Your task to perform on an android device: Open the map Image 0: 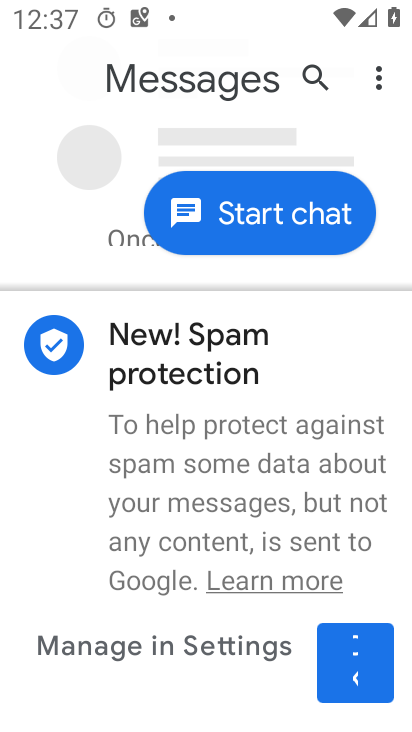
Step 0: drag from (361, 530) to (402, 461)
Your task to perform on an android device: Open the map Image 1: 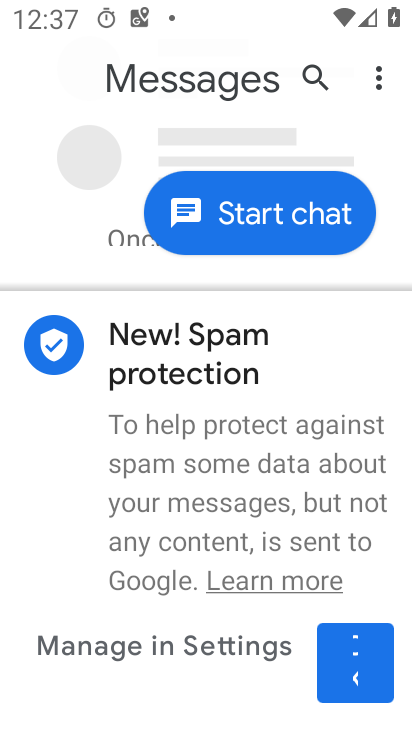
Step 1: press home button
Your task to perform on an android device: Open the map Image 2: 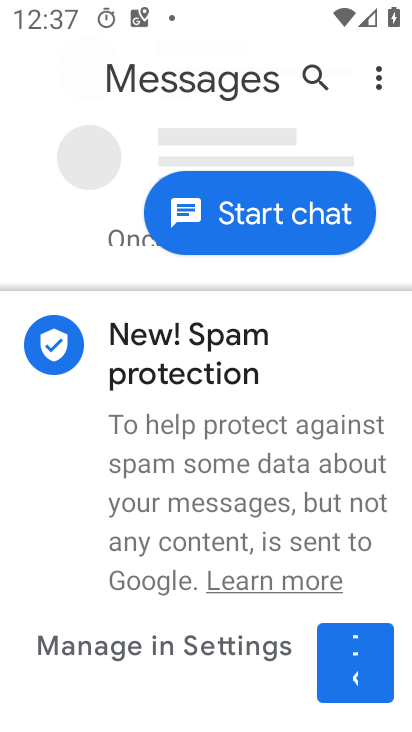
Step 2: click (402, 461)
Your task to perform on an android device: Open the map Image 3: 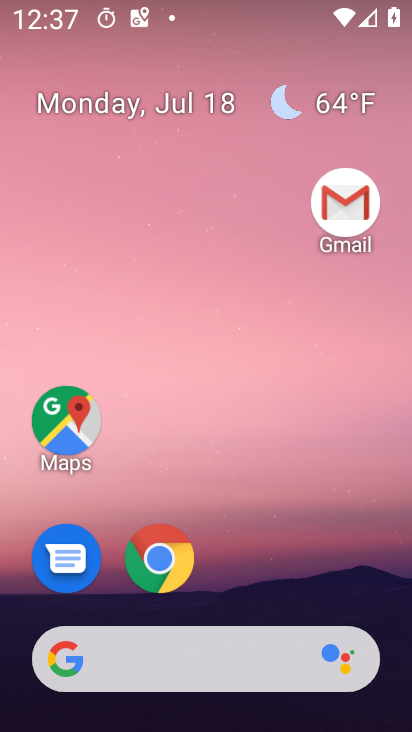
Step 3: drag from (338, 564) to (371, 107)
Your task to perform on an android device: Open the map Image 4: 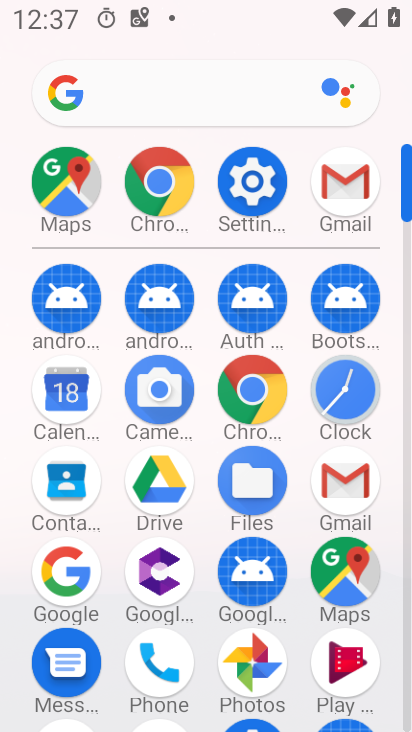
Step 4: click (74, 197)
Your task to perform on an android device: Open the map Image 5: 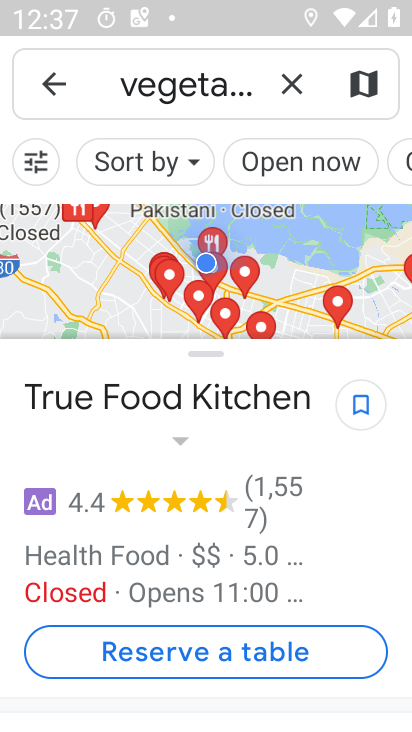
Step 5: task complete